Your task to perform on an android device: Open Google Image 0: 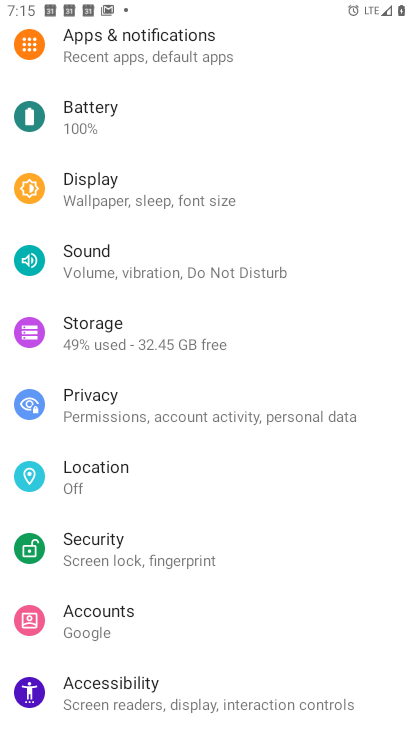
Step 0: press home button
Your task to perform on an android device: Open Google Image 1: 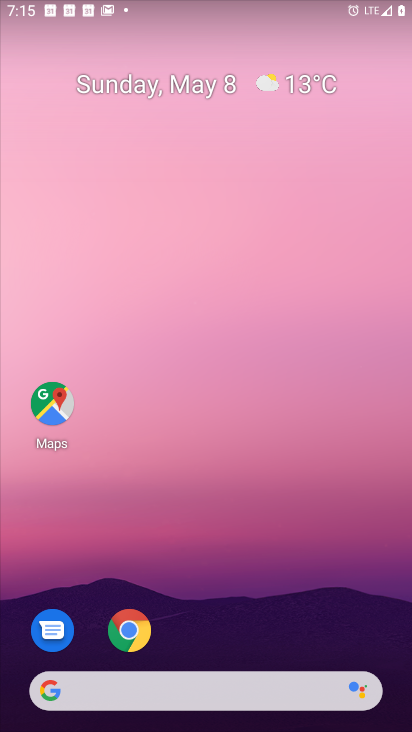
Step 1: click (119, 684)
Your task to perform on an android device: Open Google Image 2: 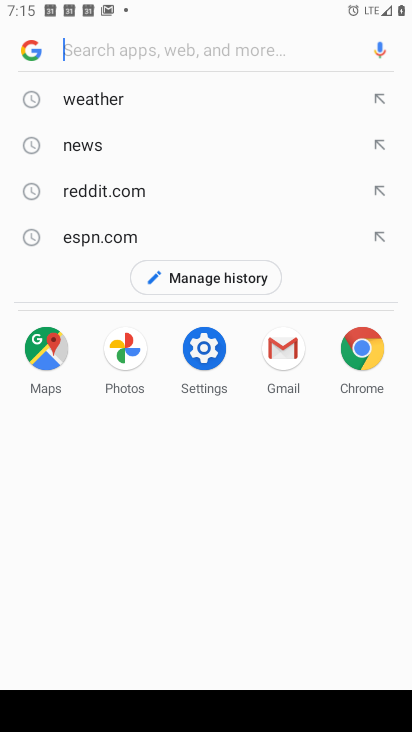
Step 2: task complete